Your task to perform on an android device: Show me popular games on the Play Store Image 0: 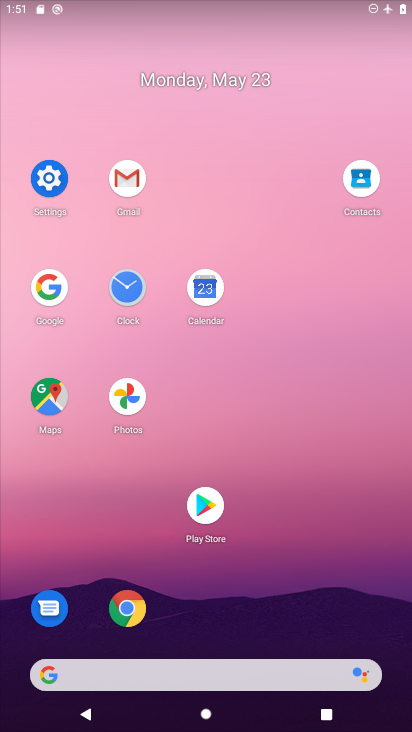
Step 0: drag from (248, 609) to (203, 274)
Your task to perform on an android device: Show me popular games on the Play Store Image 1: 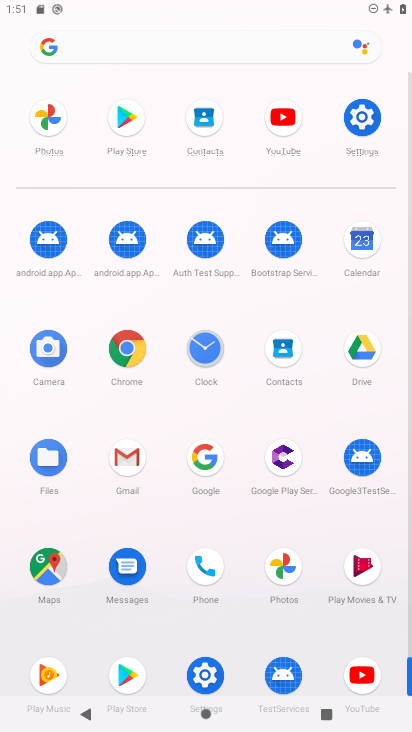
Step 1: click (127, 124)
Your task to perform on an android device: Show me popular games on the Play Store Image 2: 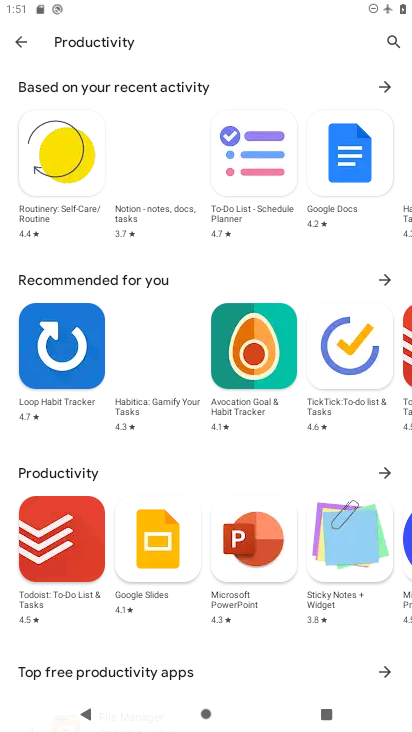
Step 2: click (15, 45)
Your task to perform on an android device: Show me popular games on the Play Store Image 3: 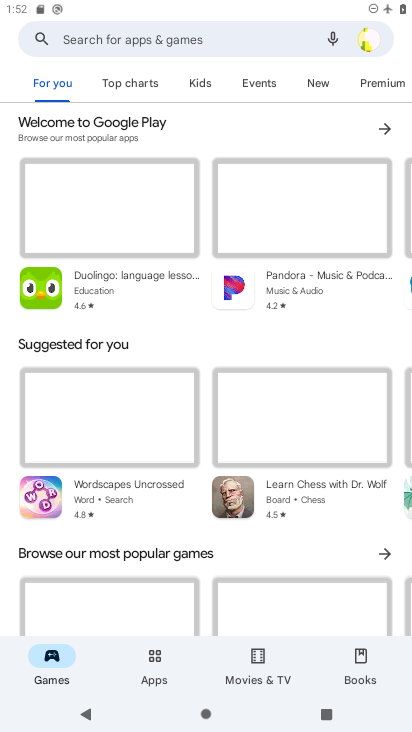
Step 3: drag from (183, 356) to (175, 171)
Your task to perform on an android device: Show me popular games on the Play Store Image 4: 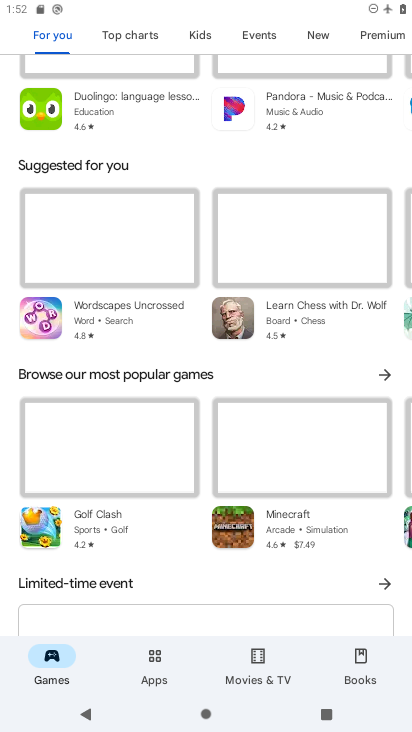
Step 4: click (217, 374)
Your task to perform on an android device: Show me popular games on the Play Store Image 5: 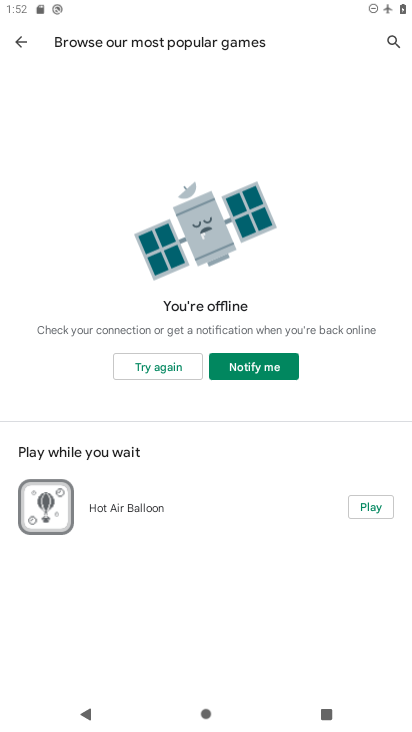
Step 5: task complete